Your task to perform on an android device: turn off notifications in google photos Image 0: 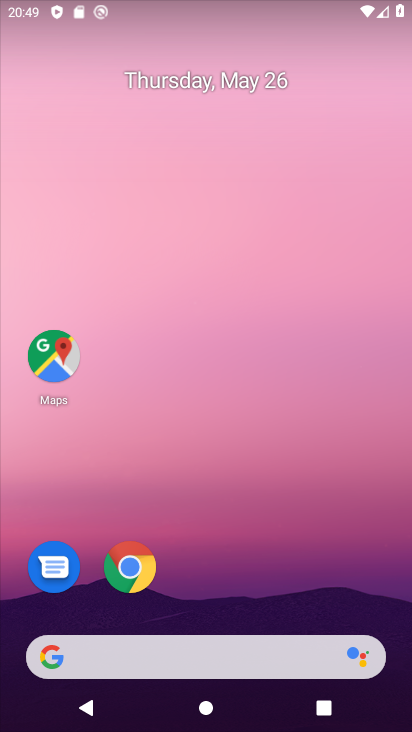
Step 0: drag from (230, 578) to (217, 299)
Your task to perform on an android device: turn off notifications in google photos Image 1: 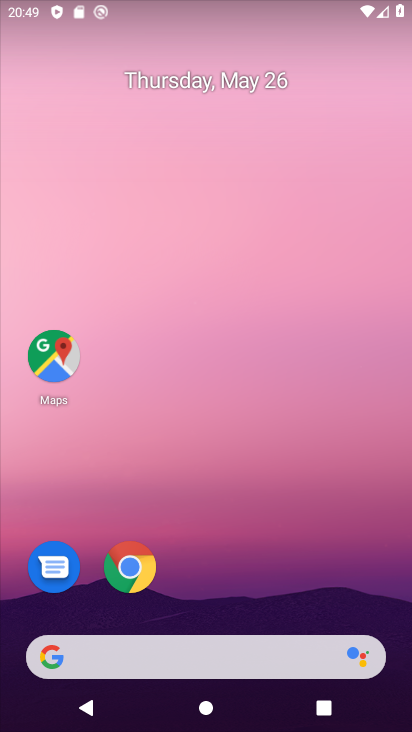
Step 1: drag from (259, 617) to (290, 91)
Your task to perform on an android device: turn off notifications in google photos Image 2: 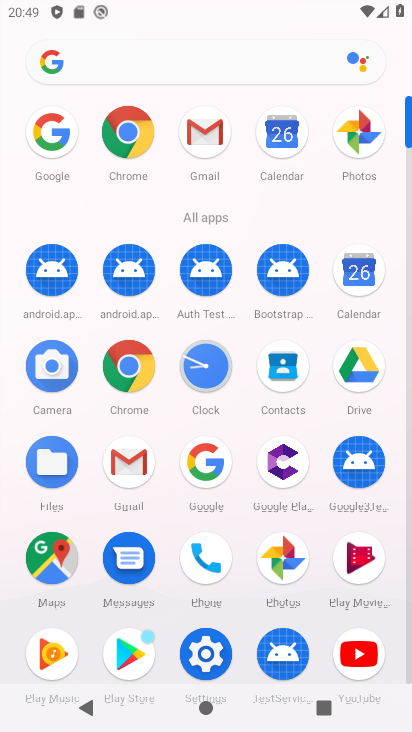
Step 2: click (211, 651)
Your task to perform on an android device: turn off notifications in google photos Image 3: 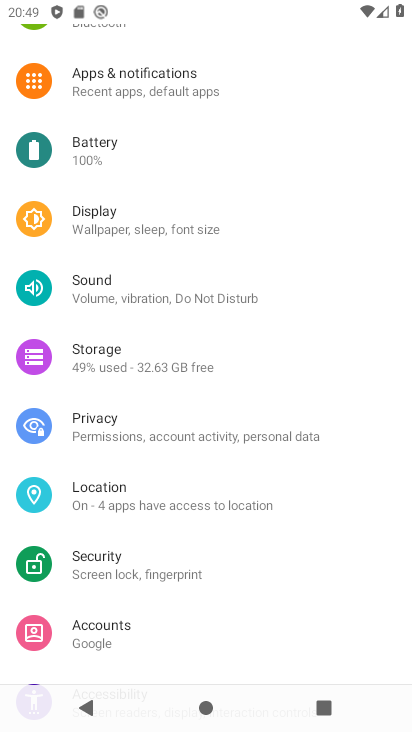
Step 3: click (177, 77)
Your task to perform on an android device: turn off notifications in google photos Image 4: 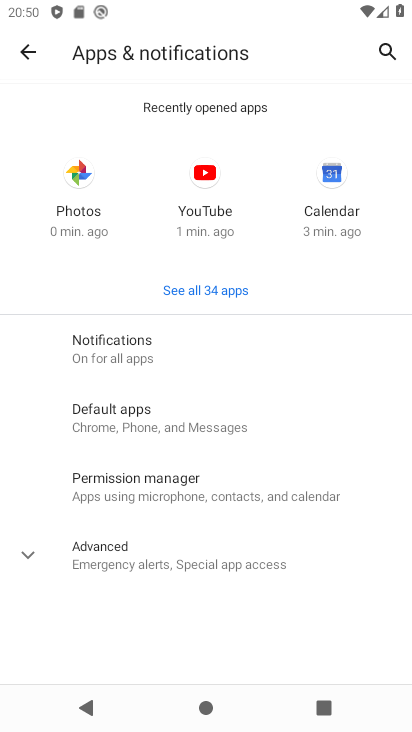
Step 4: click (83, 172)
Your task to perform on an android device: turn off notifications in google photos Image 5: 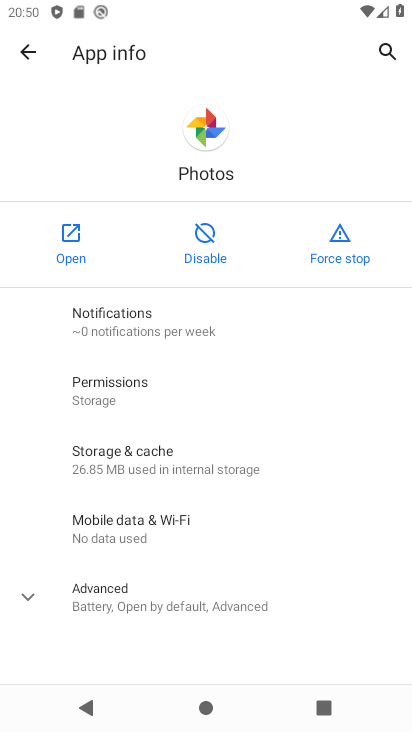
Step 5: click (118, 325)
Your task to perform on an android device: turn off notifications in google photos Image 6: 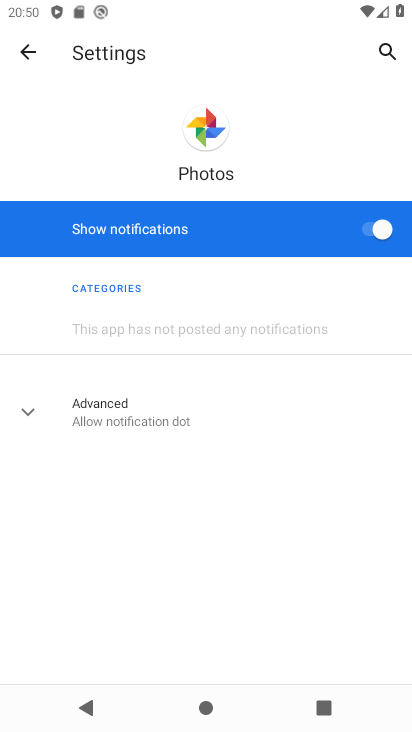
Step 6: click (364, 227)
Your task to perform on an android device: turn off notifications in google photos Image 7: 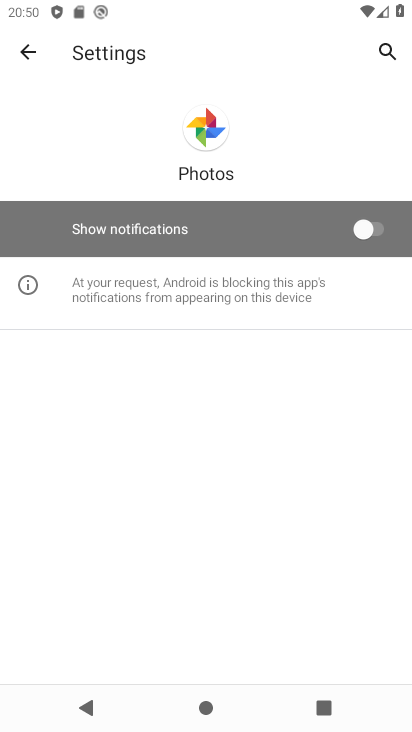
Step 7: task complete